Your task to perform on an android device: change alarm snooze length Image 0: 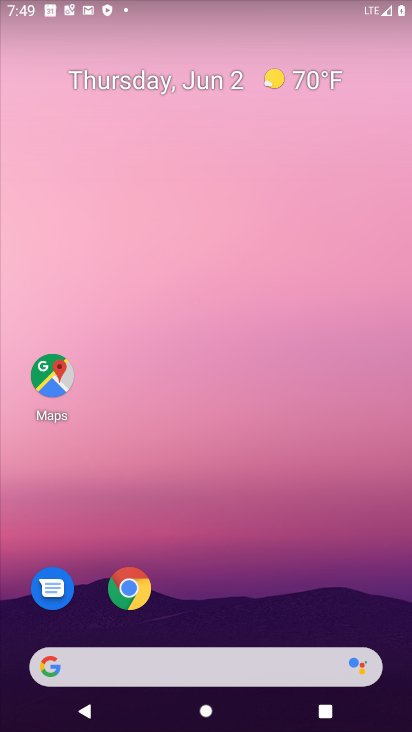
Step 0: drag from (190, 617) to (233, 144)
Your task to perform on an android device: change alarm snooze length Image 1: 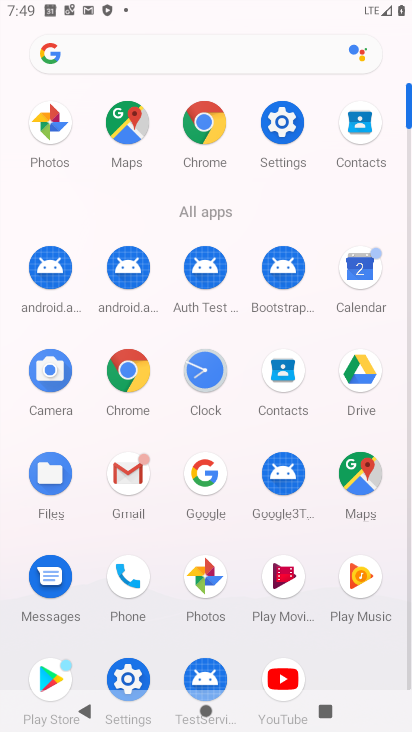
Step 1: click (210, 390)
Your task to perform on an android device: change alarm snooze length Image 2: 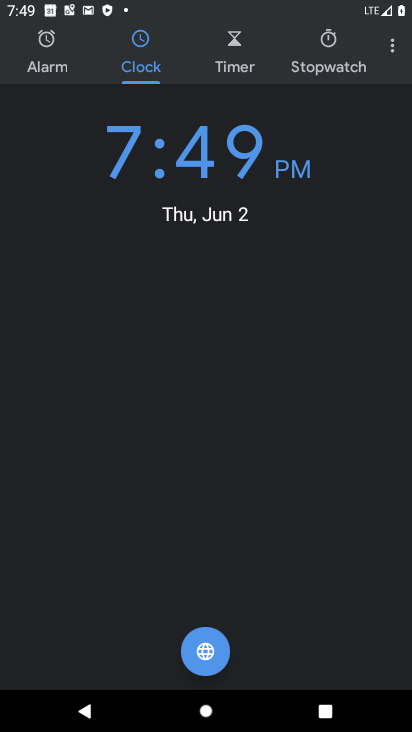
Step 2: click (387, 53)
Your task to perform on an android device: change alarm snooze length Image 3: 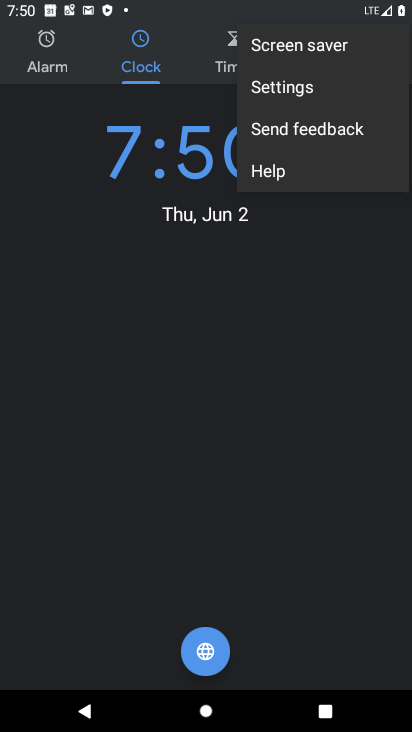
Step 3: click (280, 93)
Your task to perform on an android device: change alarm snooze length Image 4: 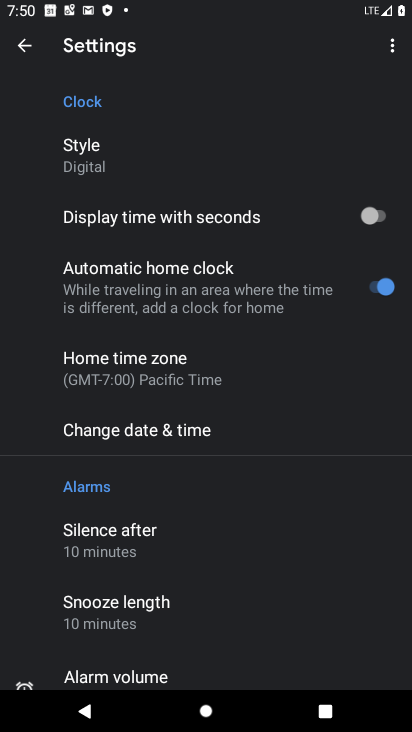
Step 4: click (130, 611)
Your task to perform on an android device: change alarm snooze length Image 5: 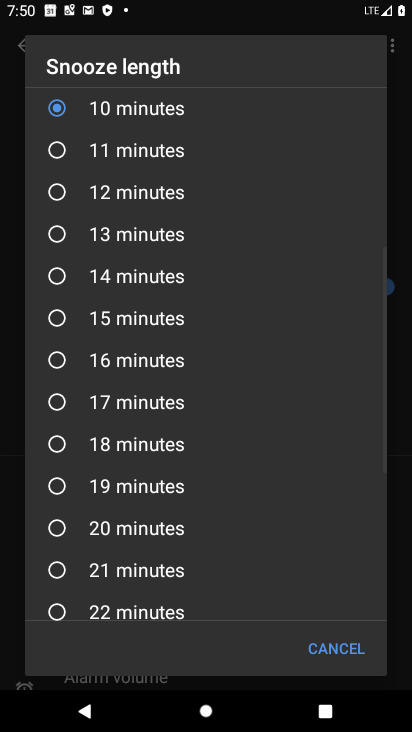
Step 5: click (108, 326)
Your task to perform on an android device: change alarm snooze length Image 6: 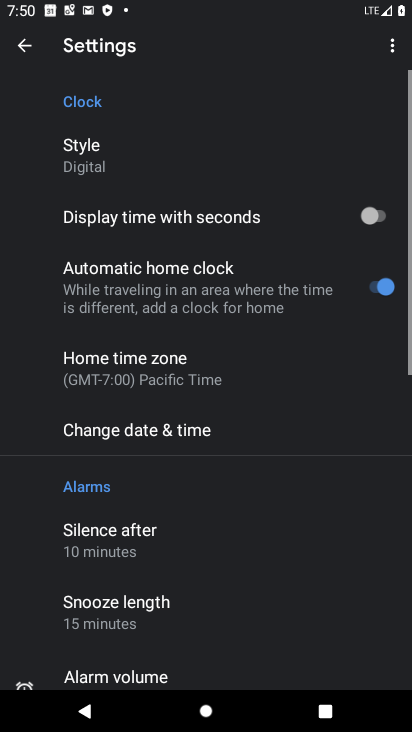
Step 6: task complete